Your task to perform on an android device: Check the news Image 0: 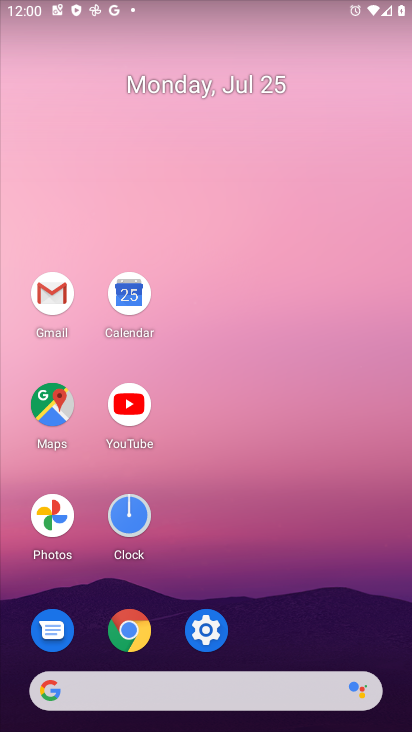
Step 0: drag from (14, 169) to (338, 257)
Your task to perform on an android device: Check the news Image 1: 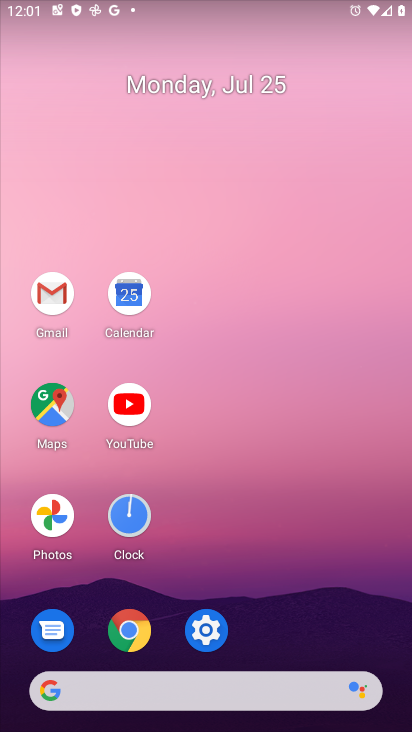
Step 1: drag from (19, 219) to (394, 254)
Your task to perform on an android device: Check the news Image 2: 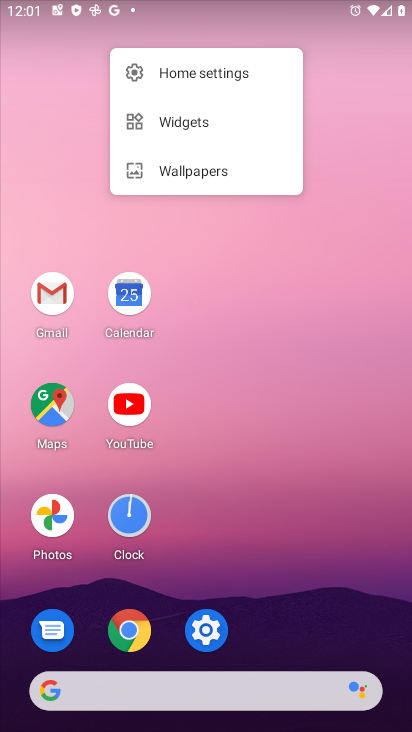
Step 2: click (394, 254)
Your task to perform on an android device: Check the news Image 3: 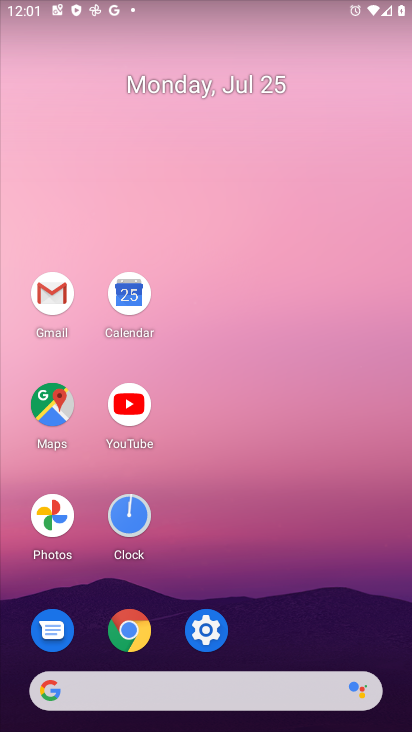
Step 3: task complete